Your task to perform on an android device: turn on showing notifications on the lock screen Image 0: 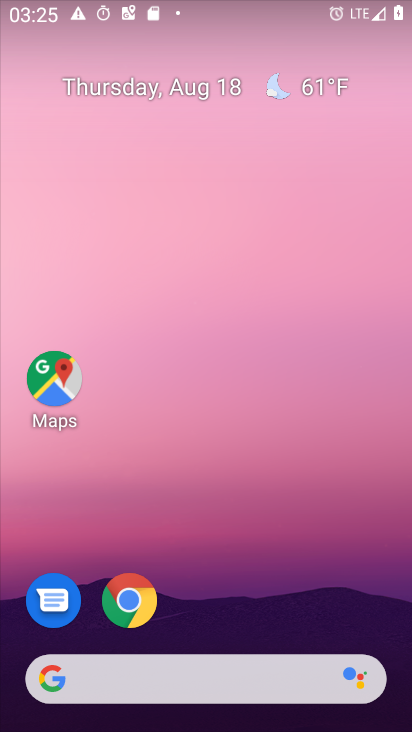
Step 0: press home button
Your task to perform on an android device: turn on showing notifications on the lock screen Image 1: 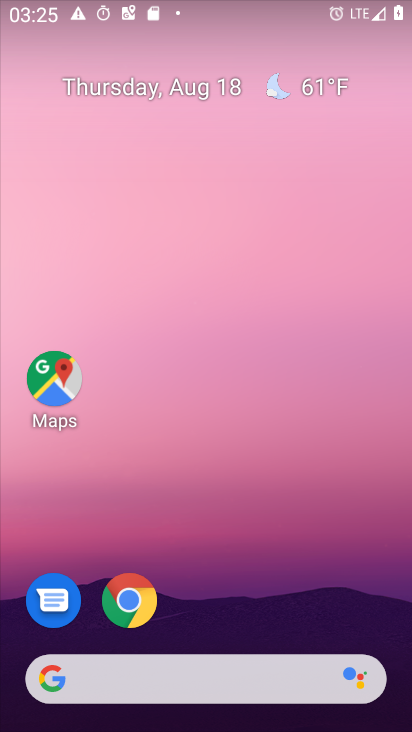
Step 1: drag from (270, 631) to (340, 208)
Your task to perform on an android device: turn on showing notifications on the lock screen Image 2: 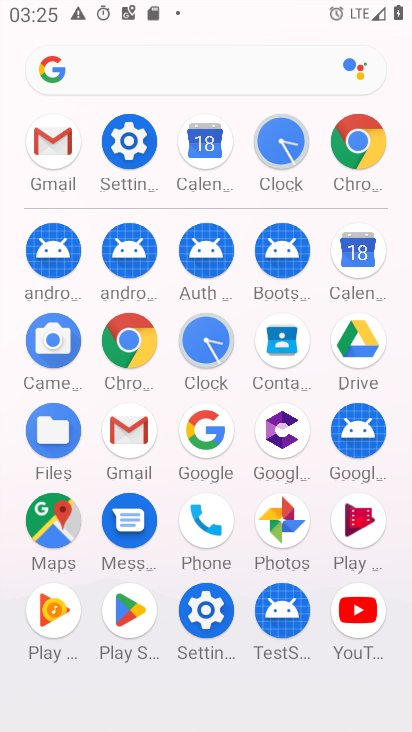
Step 2: click (126, 144)
Your task to perform on an android device: turn on showing notifications on the lock screen Image 3: 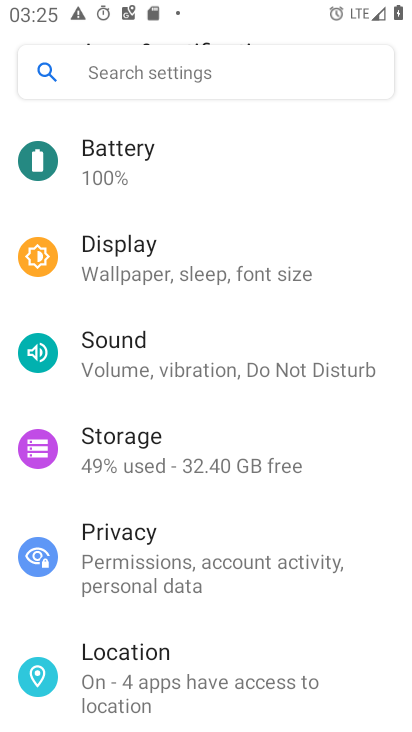
Step 3: drag from (294, 192) to (410, 523)
Your task to perform on an android device: turn on showing notifications on the lock screen Image 4: 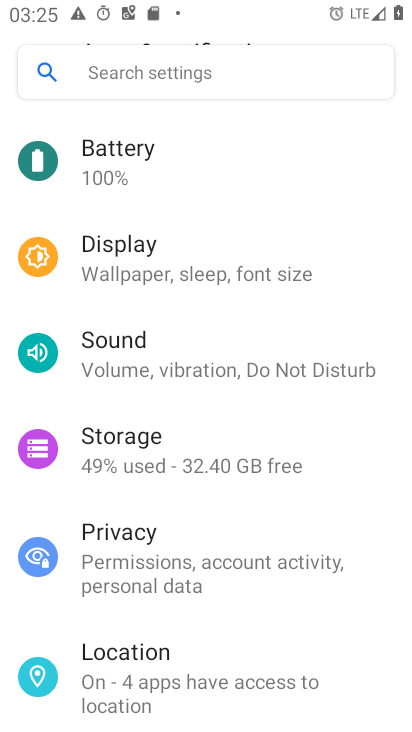
Step 4: drag from (260, 397) to (309, 729)
Your task to perform on an android device: turn on showing notifications on the lock screen Image 5: 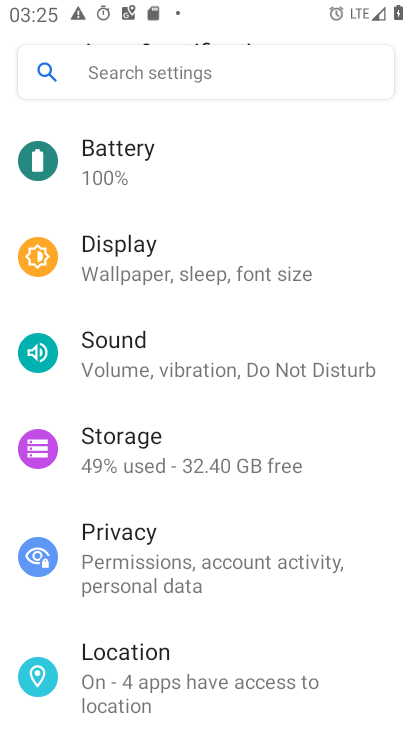
Step 5: drag from (309, 300) to (330, 602)
Your task to perform on an android device: turn on showing notifications on the lock screen Image 6: 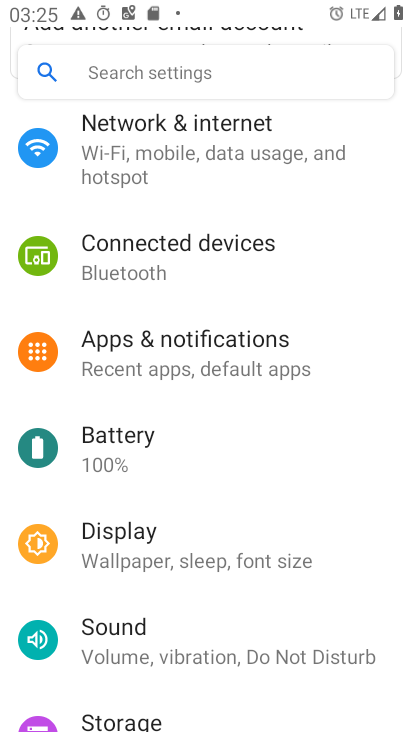
Step 6: click (149, 345)
Your task to perform on an android device: turn on showing notifications on the lock screen Image 7: 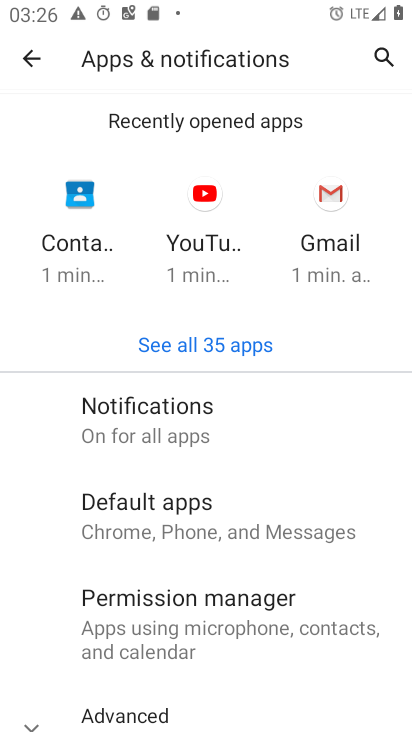
Step 7: click (184, 431)
Your task to perform on an android device: turn on showing notifications on the lock screen Image 8: 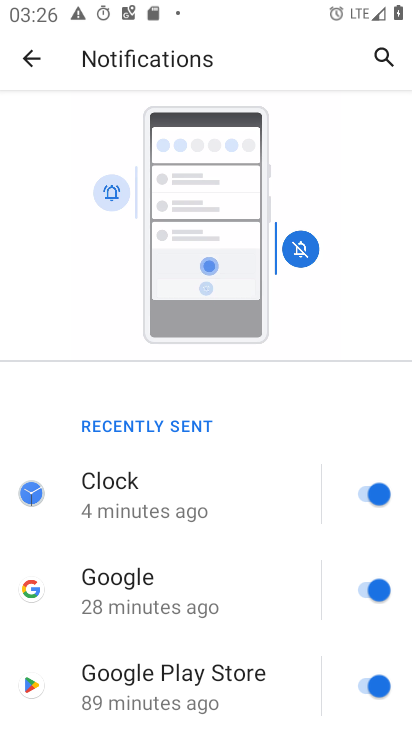
Step 8: drag from (303, 700) to (407, 374)
Your task to perform on an android device: turn on showing notifications on the lock screen Image 9: 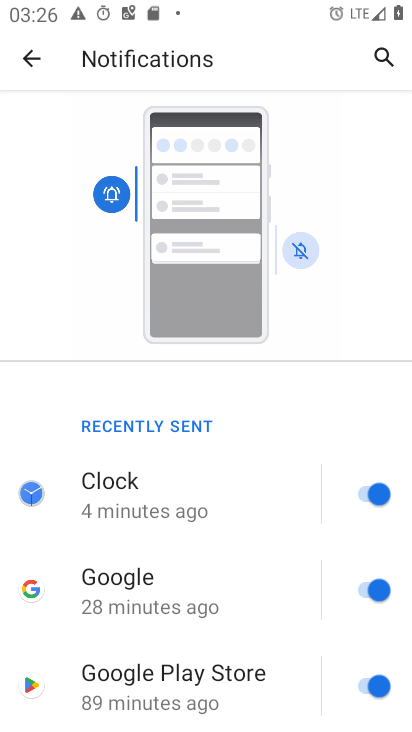
Step 9: drag from (337, 694) to (365, 215)
Your task to perform on an android device: turn on showing notifications on the lock screen Image 10: 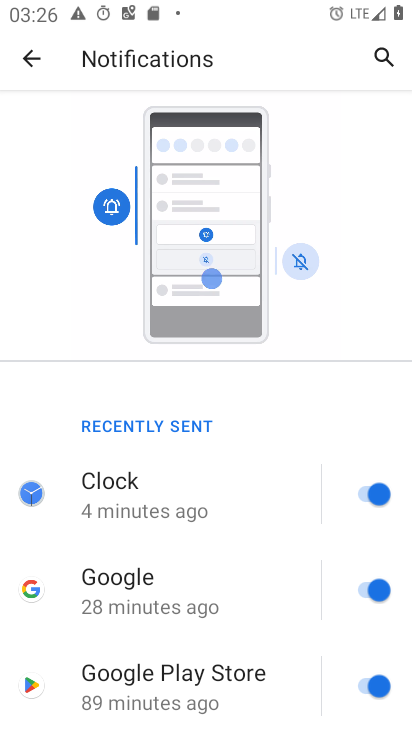
Step 10: drag from (250, 585) to (342, 155)
Your task to perform on an android device: turn on showing notifications on the lock screen Image 11: 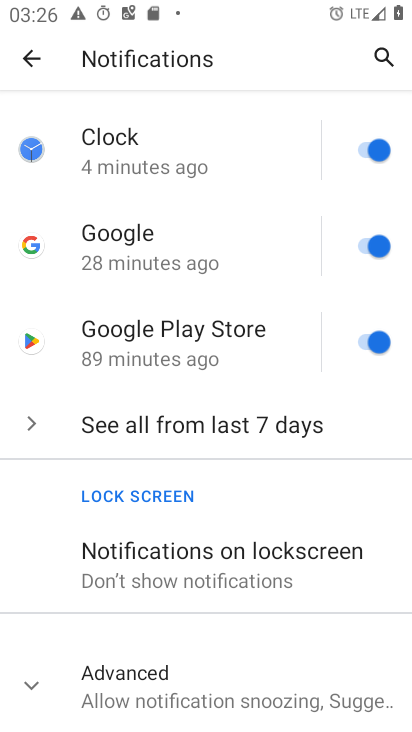
Step 11: click (213, 574)
Your task to perform on an android device: turn on showing notifications on the lock screen Image 12: 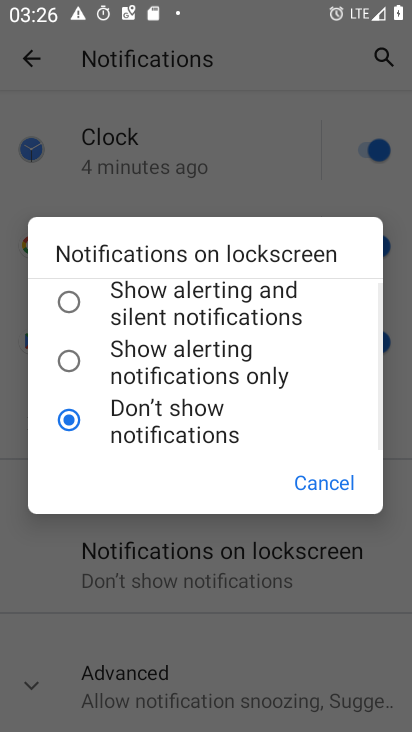
Step 12: click (68, 297)
Your task to perform on an android device: turn on showing notifications on the lock screen Image 13: 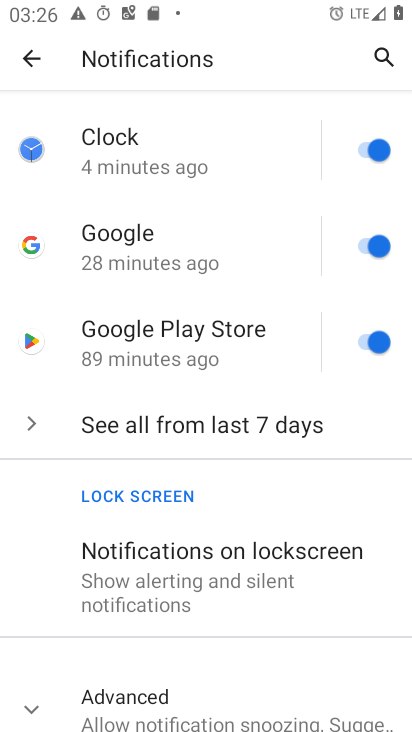
Step 13: task complete